Your task to perform on an android device: refresh tabs in the chrome app Image 0: 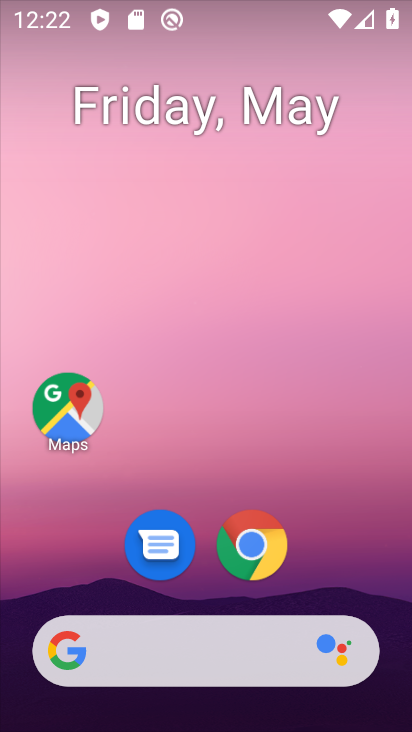
Step 0: click (247, 548)
Your task to perform on an android device: refresh tabs in the chrome app Image 1: 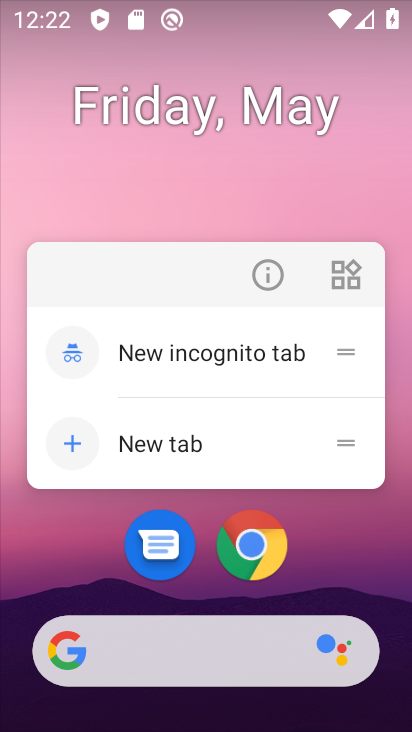
Step 1: click (249, 541)
Your task to perform on an android device: refresh tabs in the chrome app Image 2: 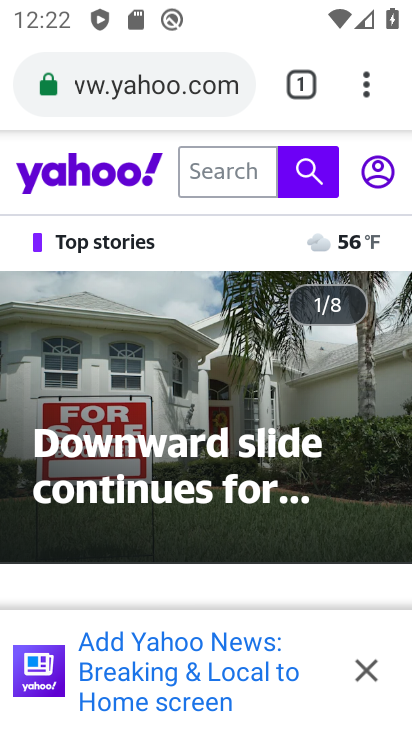
Step 2: drag from (246, 134) to (298, 524)
Your task to perform on an android device: refresh tabs in the chrome app Image 3: 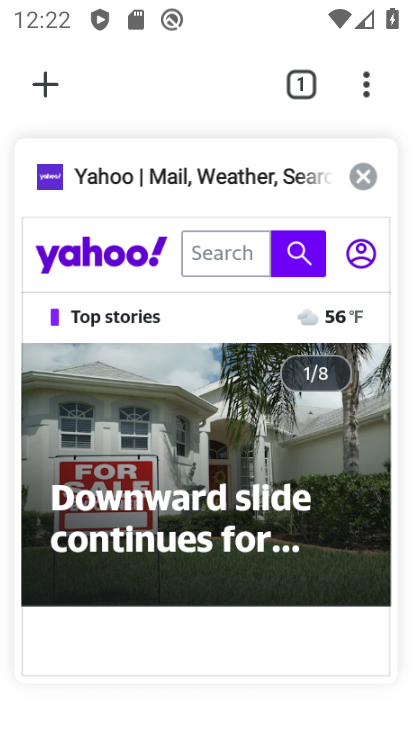
Step 3: click (184, 396)
Your task to perform on an android device: refresh tabs in the chrome app Image 4: 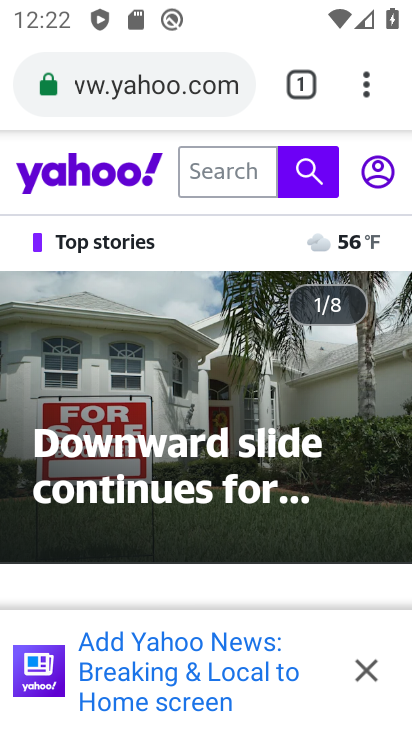
Step 4: click (356, 88)
Your task to perform on an android device: refresh tabs in the chrome app Image 5: 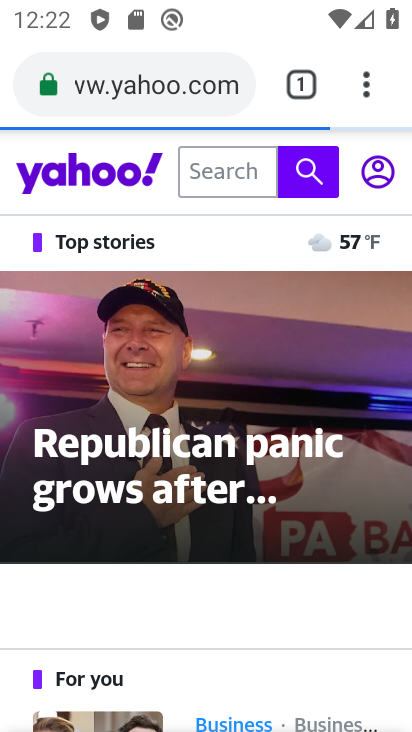
Step 5: click (368, 80)
Your task to perform on an android device: refresh tabs in the chrome app Image 6: 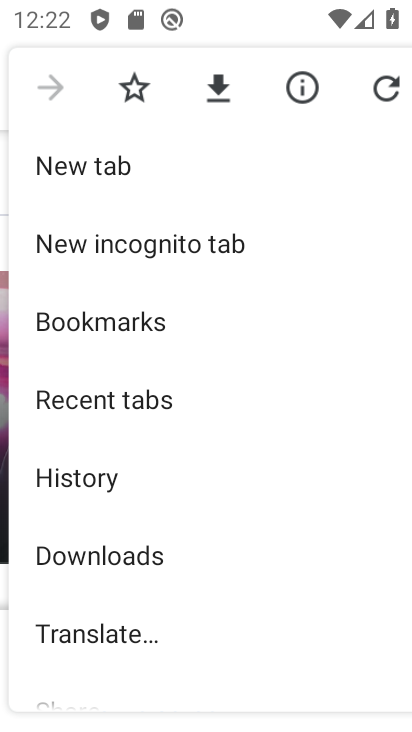
Step 6: drag from (281, 563) to (312, 281)
Your task to perform on an android device: refresh tabs in the chrome app Image 7: 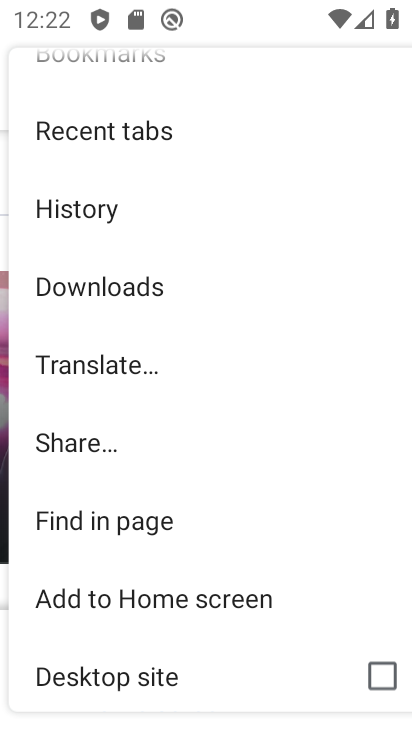
Step 7: drag from (325, 246) to (400, 575)
Your task to perform on an android device: refresh tabs in the chrome app Image 8: 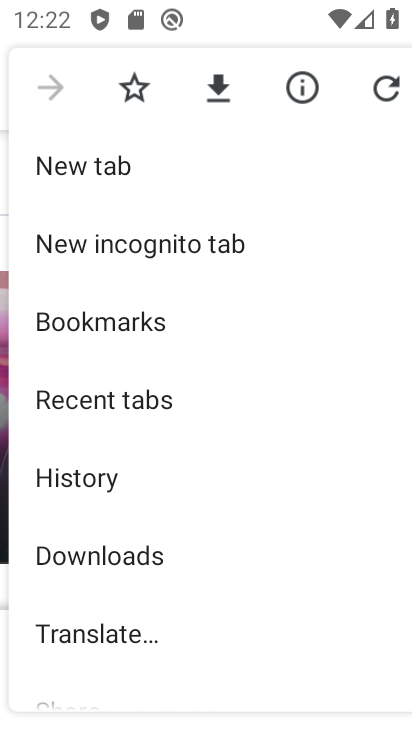
Step 8: click (389, 89)
Your task to perform on an android device: refresh tabs in the chrome app Image 9: 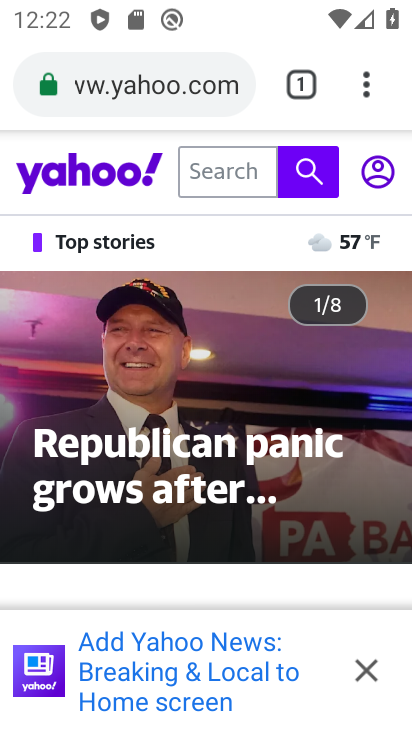
Step 9: task complete